Your task to perform on an android device: Search for sushi restaurants on Maps Image 0: 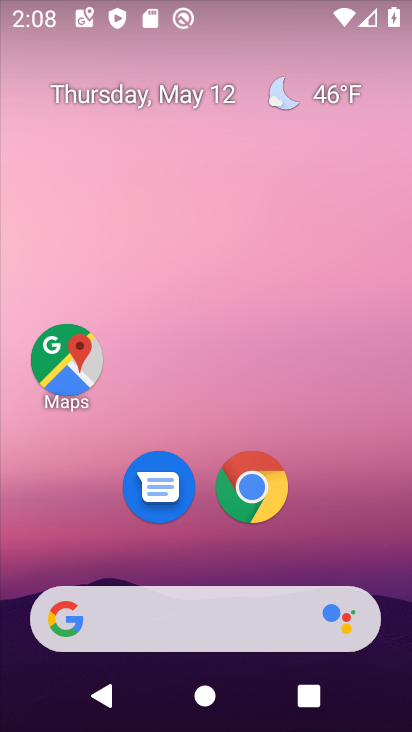
Step 0: click (36, 375)
Your task to perform on an android device: Search for sushi restaurants on Maps Image 1: 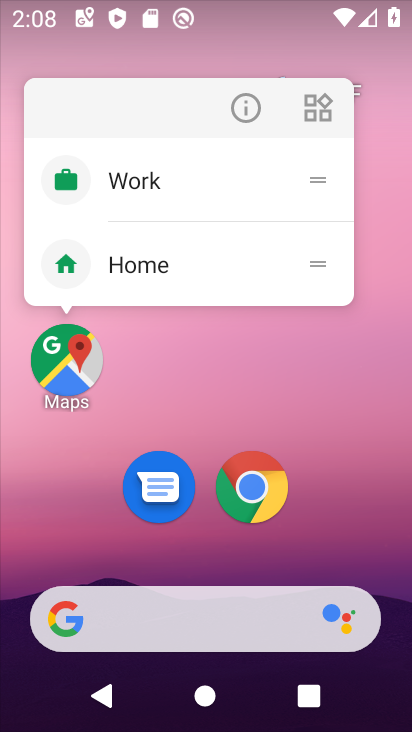
Step 1: click (31, 371)
Your task to perform on an android device: Search for sushi restaurants on Maps Image 2: 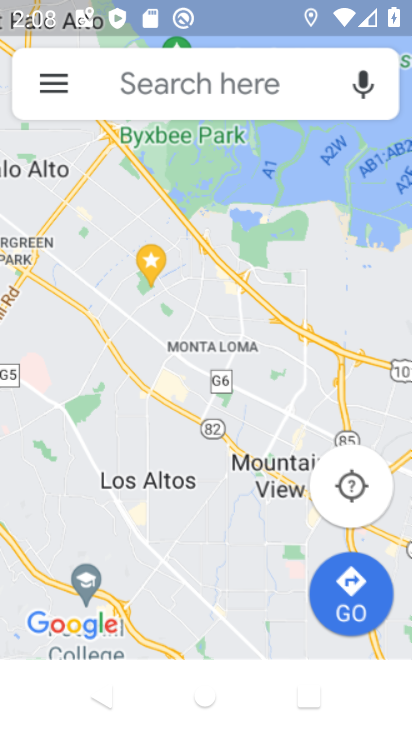
Step 2: click (218, 95)
Your task to perform on an android device: Search for sushi restaurants on Maps Image 3: 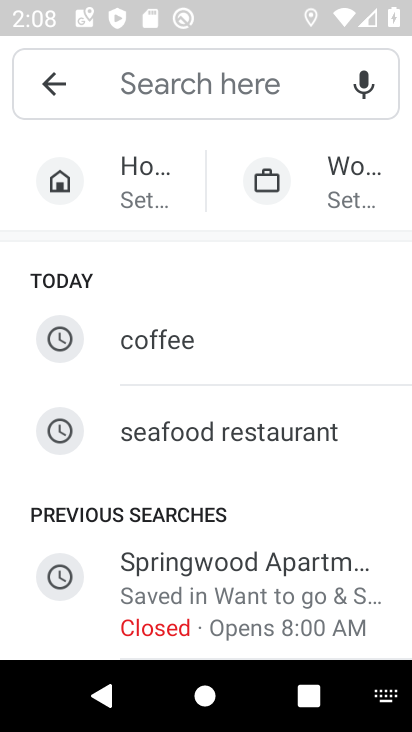
Step 3: type "sushi restaurant"
Your task to perform on an android device: Search for sushi restaurants on Maps Image 4: 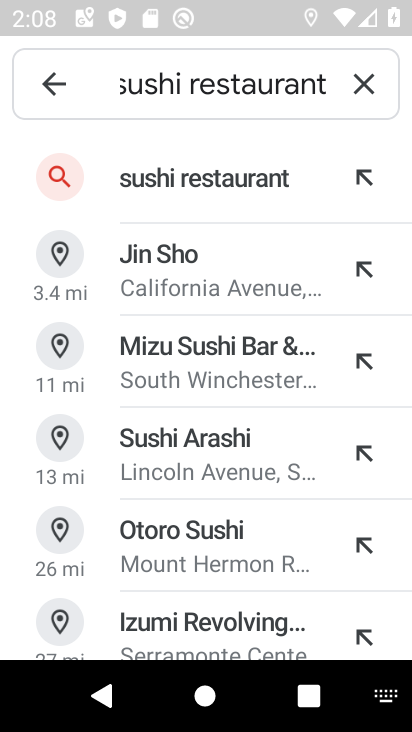
Step 4: click (254, 182)
Your task to perform on an android device: Search for sushi restaurants on Maps Image 5: 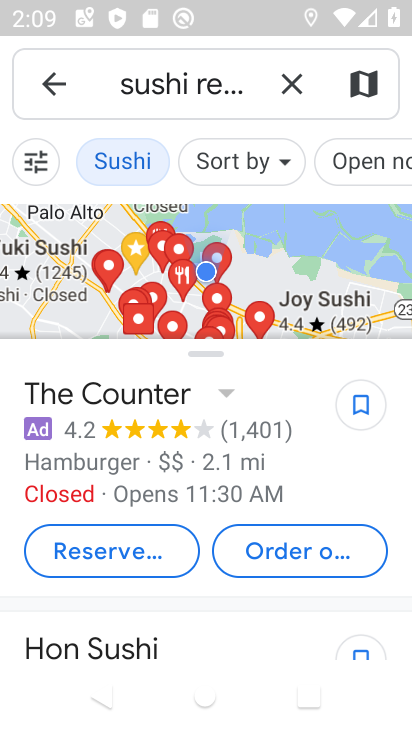
Step 5: task complete